Your task to perform on an android device: Go to Google maps Image 0: 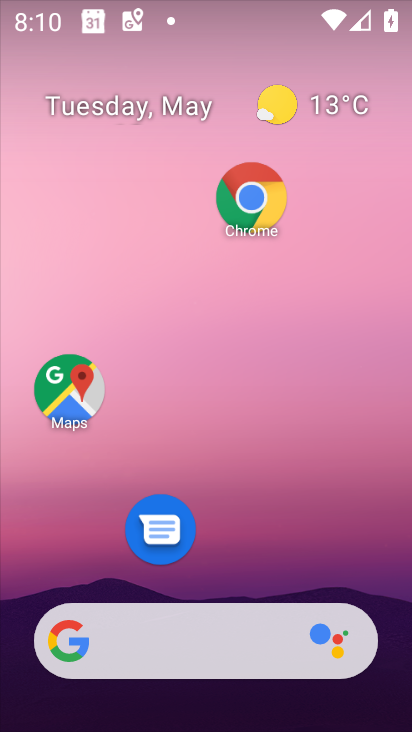
Step 0: click (73, 392)
Your task to perform on an android device: Go to Google maps Image 1: 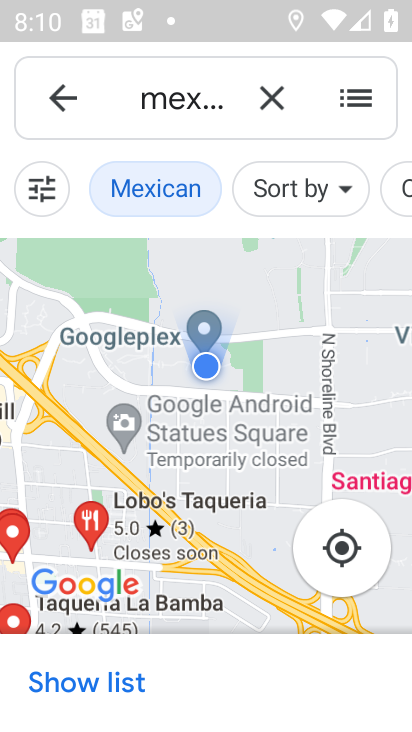
Step 1: task complete